Your task to perform on an android device: Go to wifi settings Image 0: 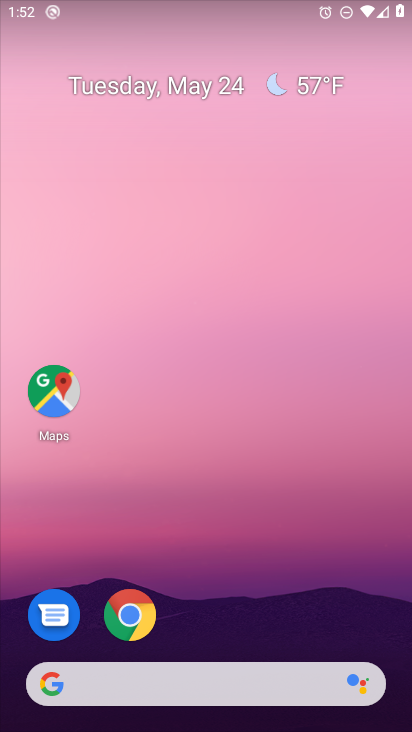
Step 0: drag from (205, 617) to (199, 290)
Your task to perform on an android device: Go to wifi settings Image 1: 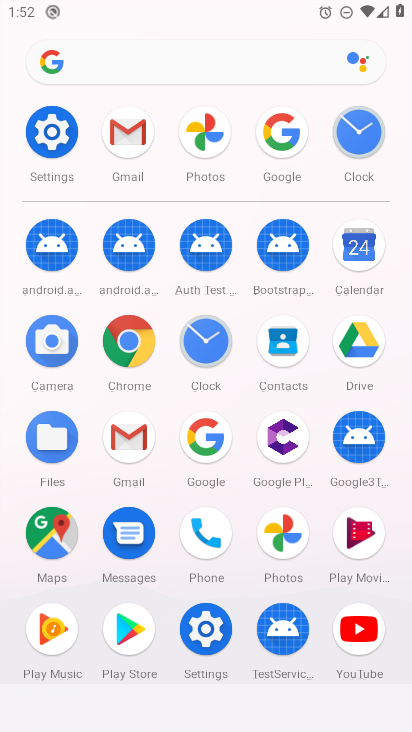
Step 1: click (46, 128)
Your task to perform on an android device: Go to wifi settings Image 2: 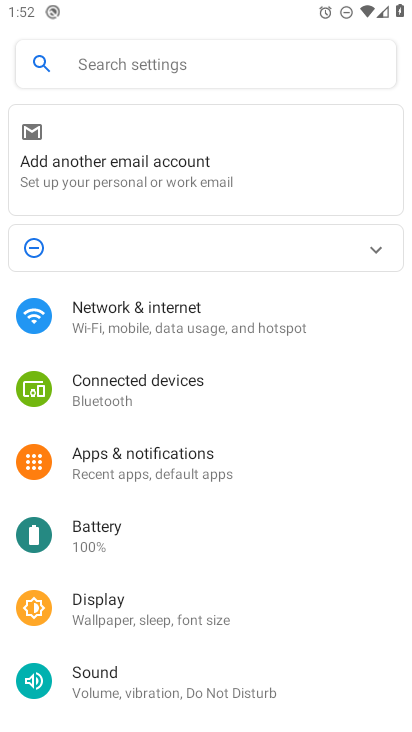
Step 2: click (165, 313)
Your task to perform on an android device: Go to wifi settings Image 3: 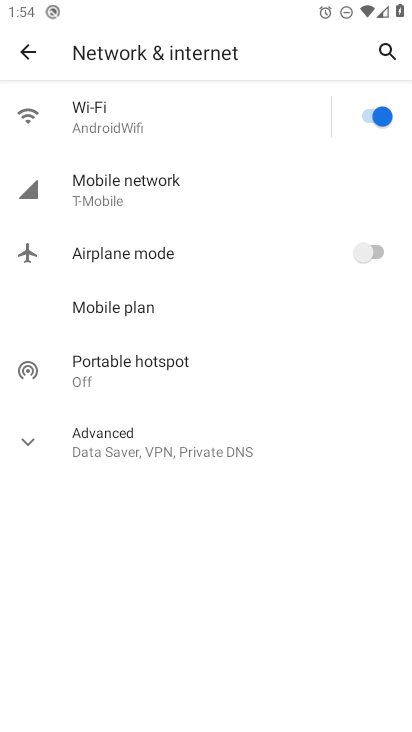
Step 3: click (94, 113)
Your task to perform on an android device: Go to wifi settings Image 4: 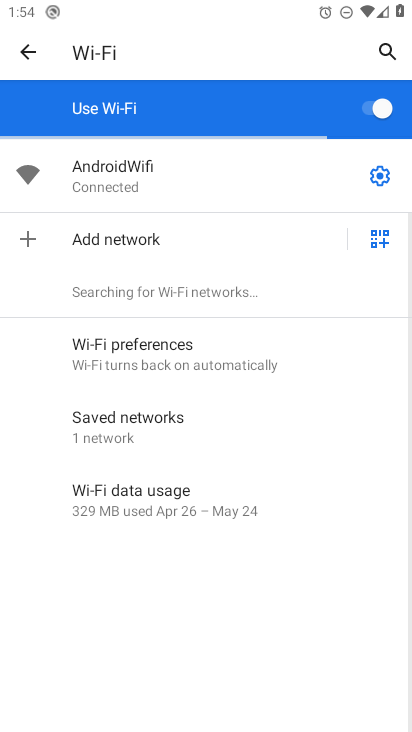
Step 4: click (379, 177)
Your task to perform on an android device: Go to wifi settings Image 5: 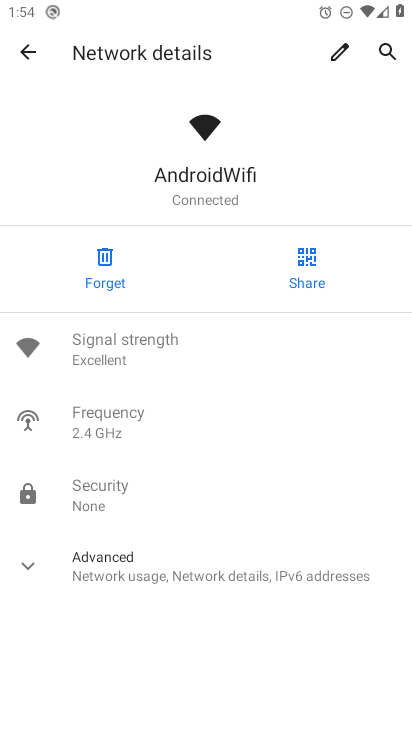
Step 5: click (166, 573)
Your task to perform on an android device: Go to wifi settings Image 6: 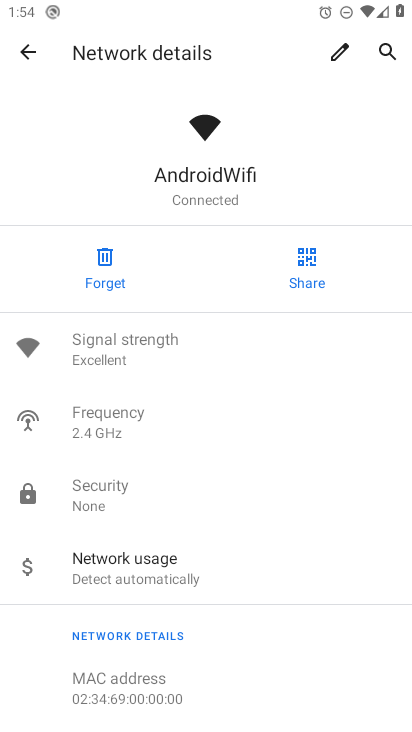
Step 6: task complete